Your task to perform on an android device: toggle notifications settings in the gmail app Image 0: 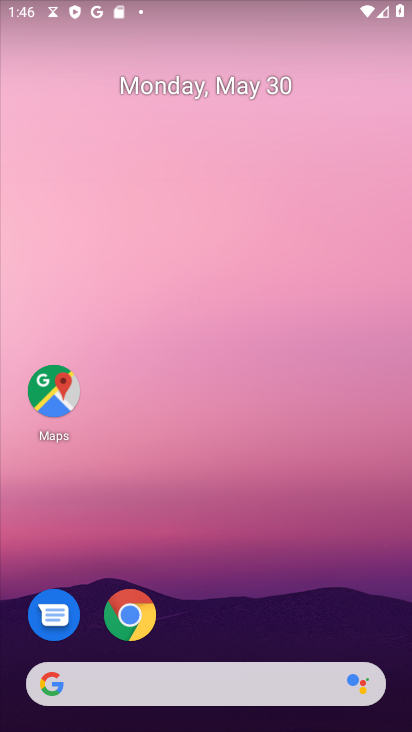
Step 0: drag from (327, 569) to (342, 21)
Your task to perform on an android device: toggle notifications settings in the gmail app Image 1: 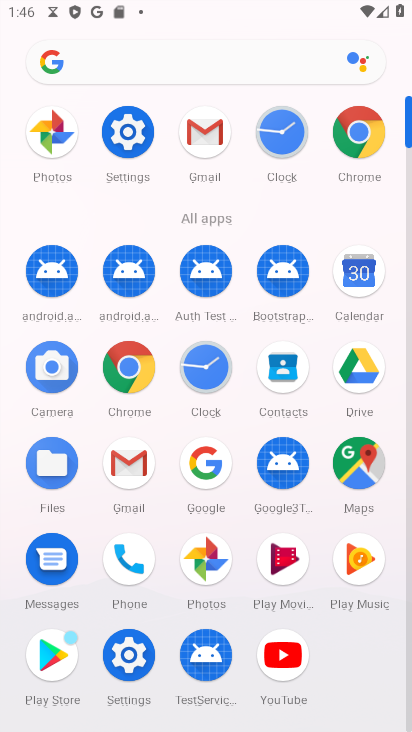
Step 1: click (194, 159)
Your task to perform on an android device: toggle notifications settings in the gmail app Image 2: 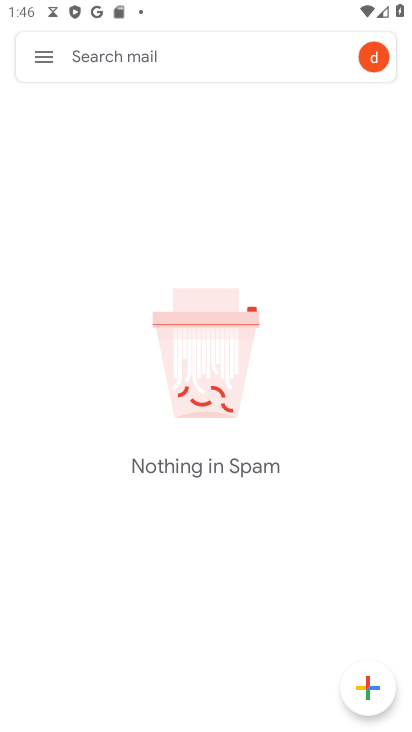
Step 2: click (57, 70)
Your task to perform on an android device: toggle notifications settings in the gmail app Image 3: 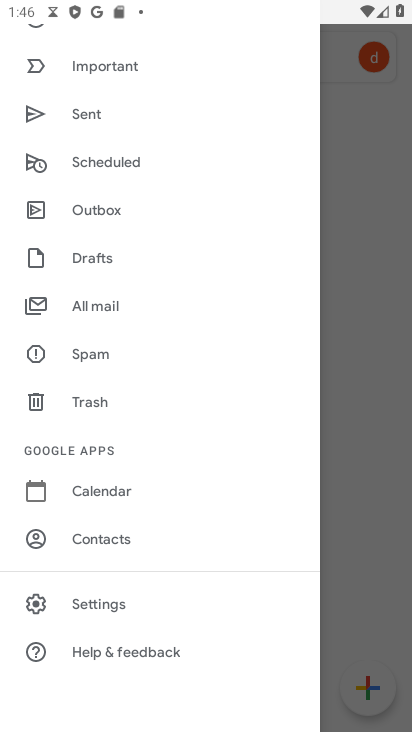
Step 3: click (96, 603)
Your task to perform on an android device: toggle notifications settings in the gmail app Image 4: 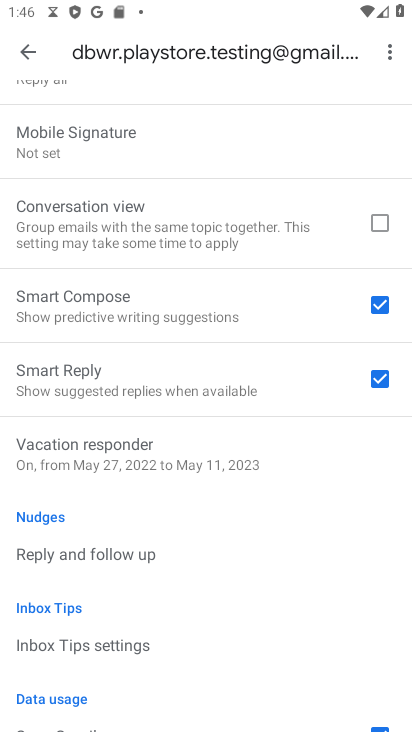
Step 4: drag from (130, 191) to (190, 585)
Your task to perform on an android device: toggle notifications settings in the gmail app Image 5: 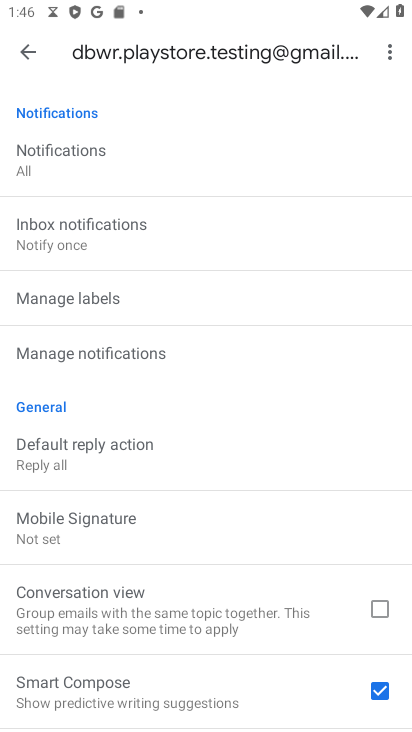
Step 5: click (64, 156)
Your task to perform on an android device: toggle notifications settings in the gmail app Image 6: 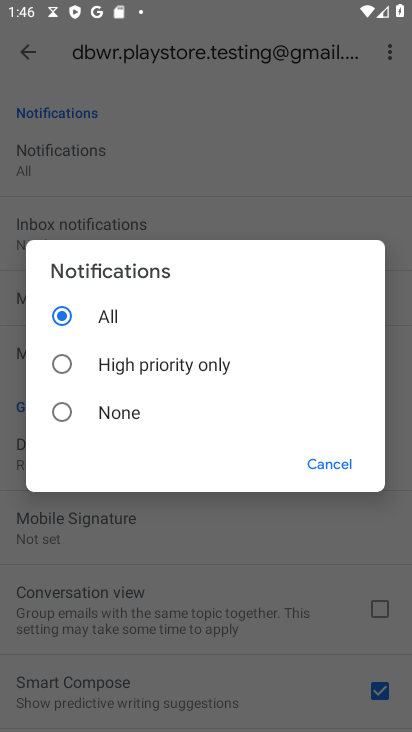
Step 6: click (124, 367)
Your task to perform on an android device: toggle notifications settings in the gmail app Image 7: 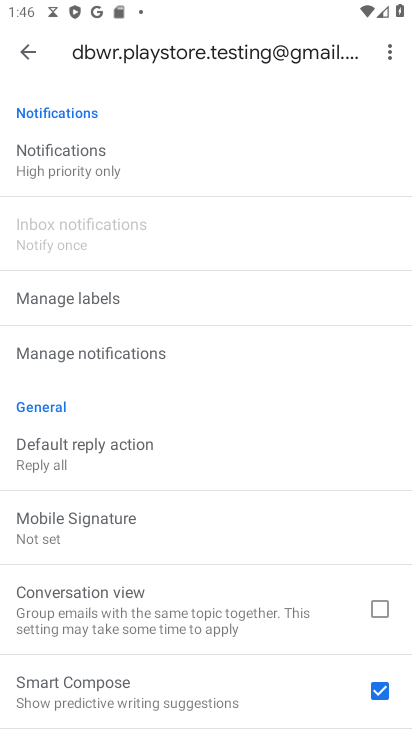
Step 7: task complete